Your task to perform on an android device: turn on the 12-hour format for clock Image 0: 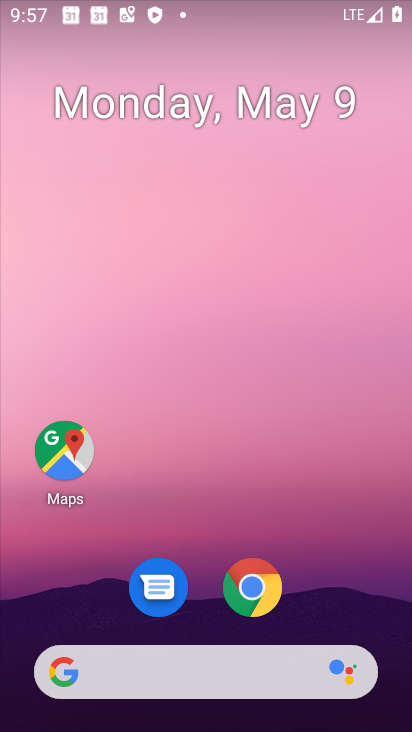
Step 0: drag from (213, 612) to (229, 260)
Your task to perform on an android device: turn on the 12-hour format for clock Image 1: 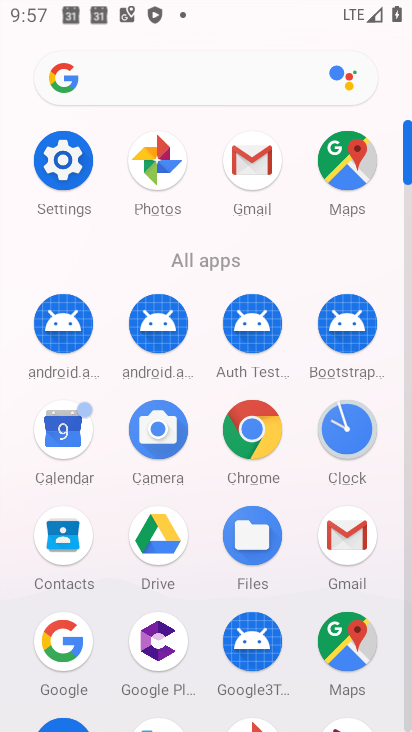
Step 1: click (339, 438)
Your task to perform on an android device: turn on the 12-hour format for clock Image 2: 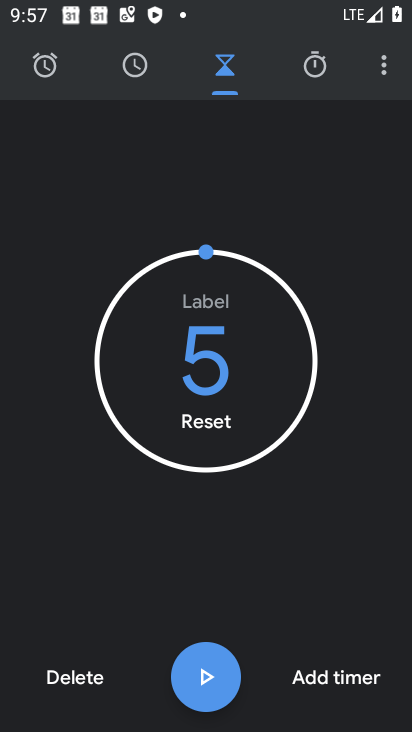
Step 2: click (367, 63)
Your task to perform on an android device: turn on the 12-hour format for clock Image 3: 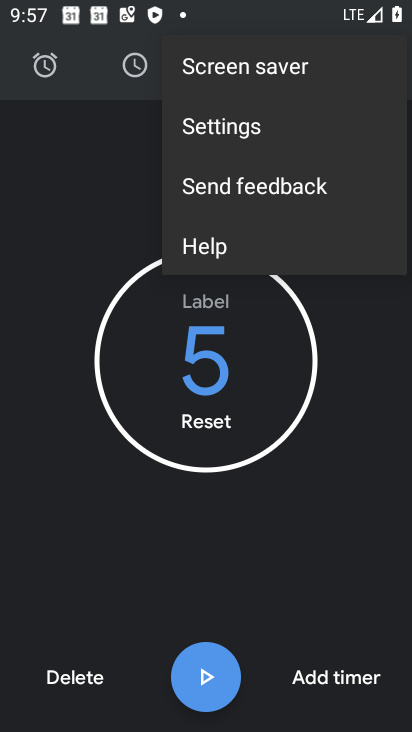
Step 3: click (208, 150)
Your task to perform on an android device: turn on the 12-hour format for clock Image 4: 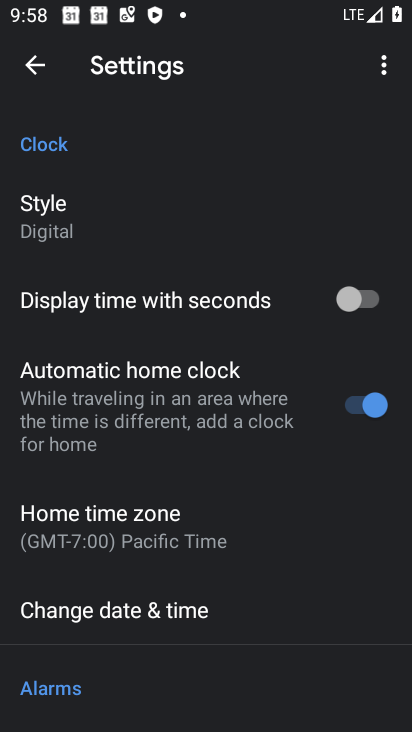
Step 4: task complete